Your task to perform on an android device: Show me popular videos on Youtube Image 0: 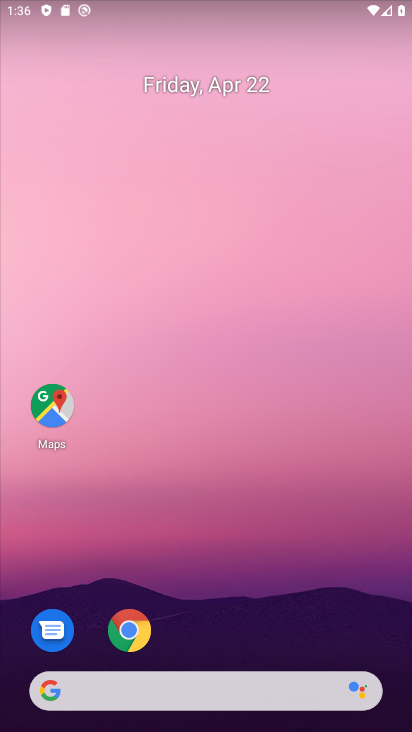
Step 0: drag from (208, 621) to (255, 194)
Your task to perform on an android device: Show me popular videos on Youtube Image 1: 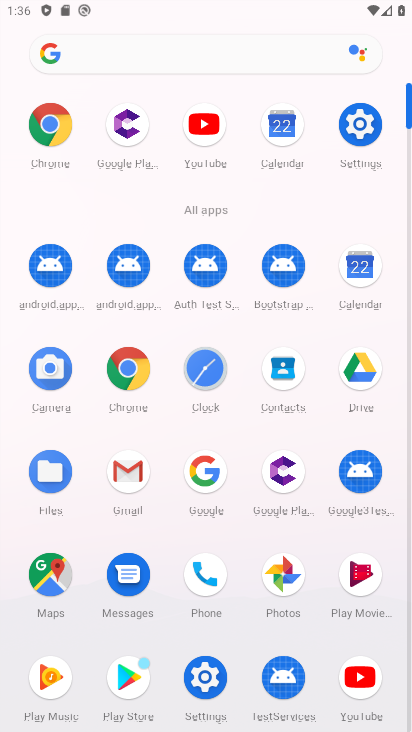
Step 1: click (202, 119)
Your task to perform on an android device: Show me popular videos on Youtube Image 2: 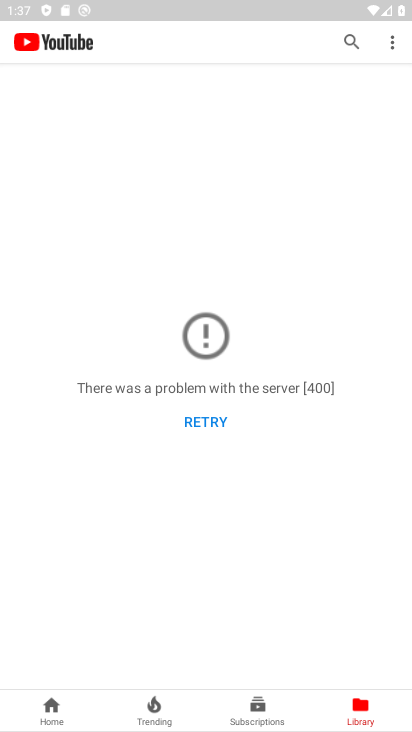
Step 2: task complete